Your task to perform on an android device: move an email to a new category in the gmail app Image 0: 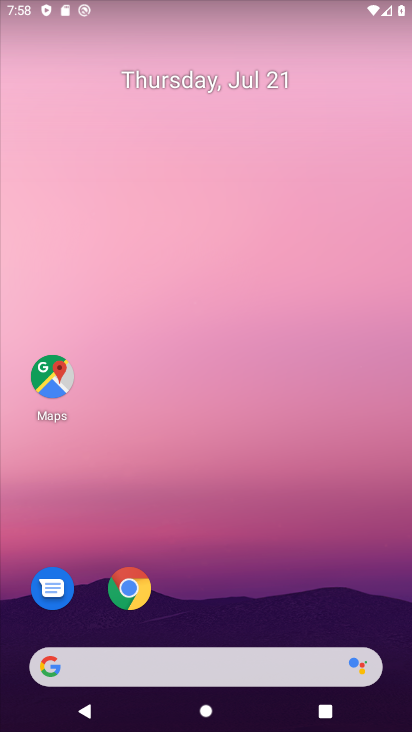
Step 0: drag from (266, 650) to (249, 227)
Your task to perform on an android device: move an email to a new category in the gmail app Image 1: 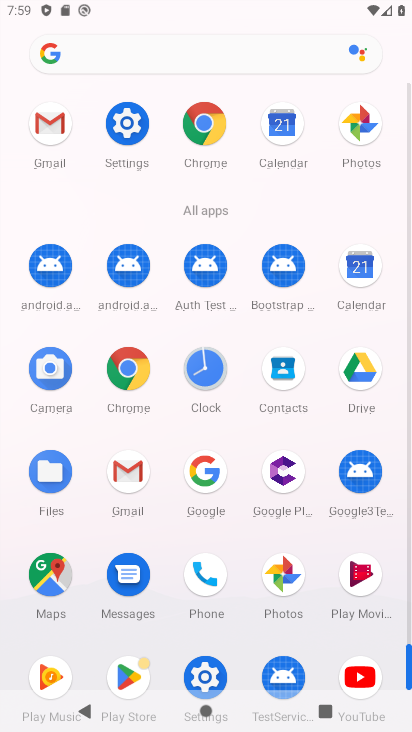
Step 1: click (123, 482)
Your task to perform on an android device: move an email to a new category in the gmail app Image 2: 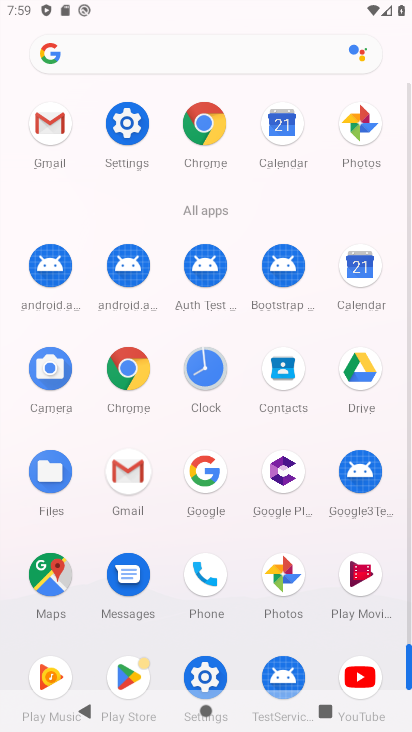
Step 2: click (126, 480)
Your task to perform on an android device: move an email to a new category in the gmail app Image 3: 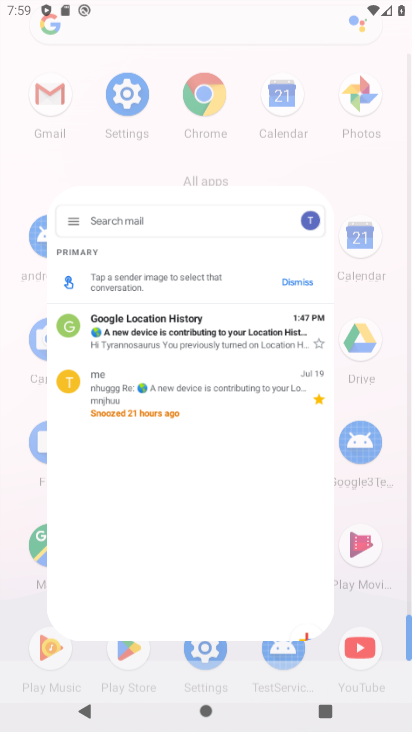
Step 3: click (126, 480)
Your task to perform on an android device: move an email to a new category in the gmail app Image 4: 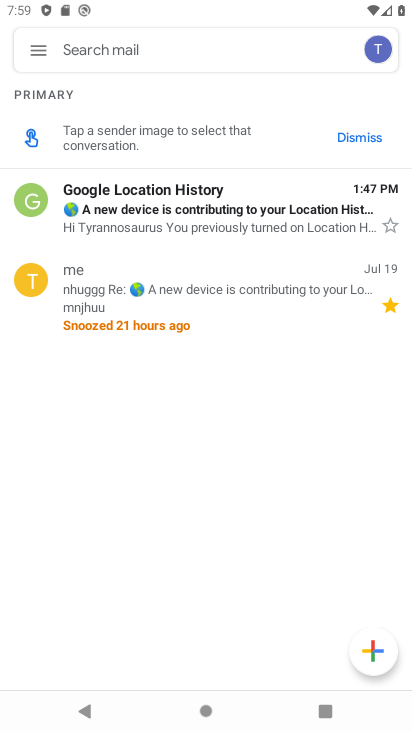
Step 4: click (392, 225)
Your task to perform on an android device: move an email to a new category in the gmail app Image 5: 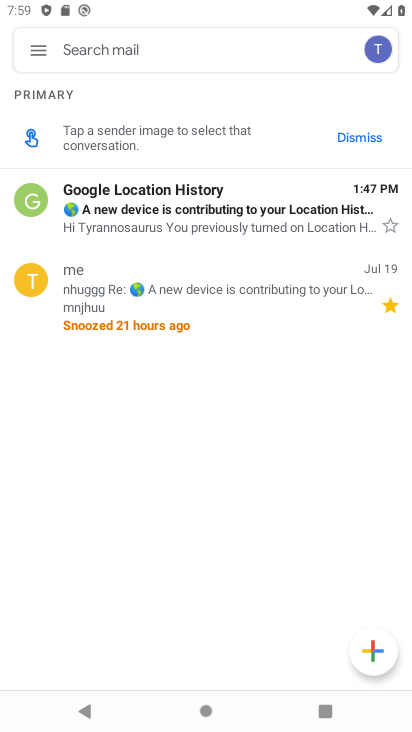
Step 5: click (392, 225)
Your task to perform on an android device: move an email to a new category in the gmail app Image 6: 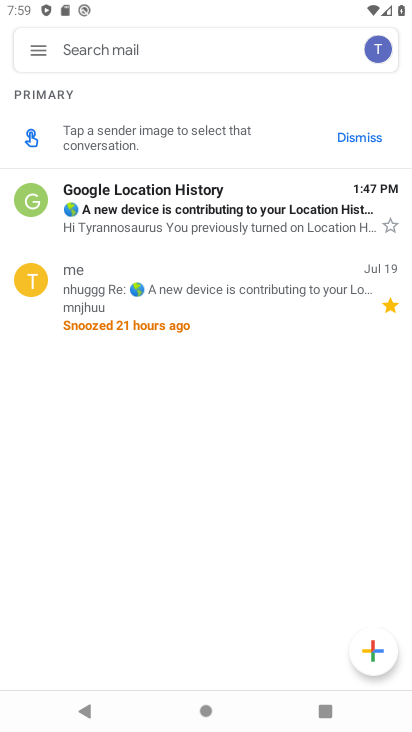
Step 6: click (391, 224)
Your task to perform on an android device: move an email to a new category in the gmail app Image 7: 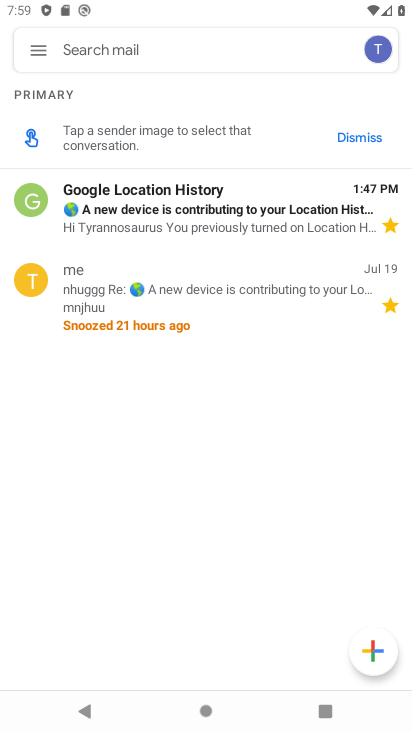
Step 7: task complete